Your task to perform on an android device: turn on the 24-hour format for clock Image 0: 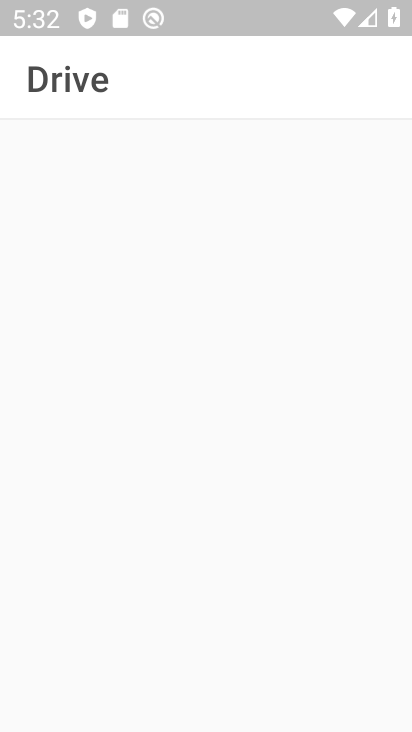
Step 0: press home button
Your task to perform on an android device: turn on the 24-hour format for clock Image 1: 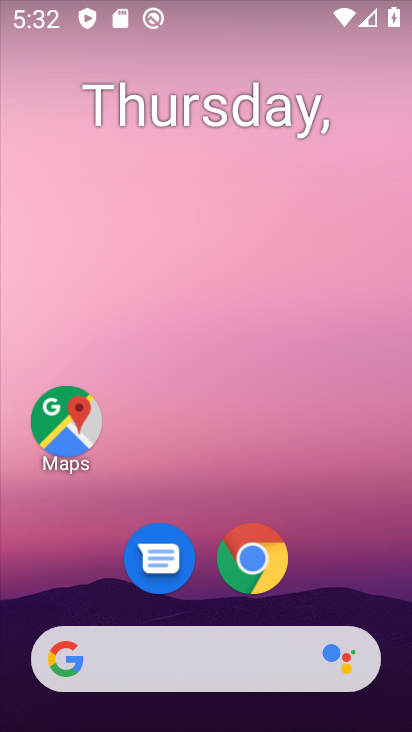
Step 1: drag from (315, 418) to (262, 100)
Your task to perform on an android device: turn on the 24-hour format for clock Image 2: 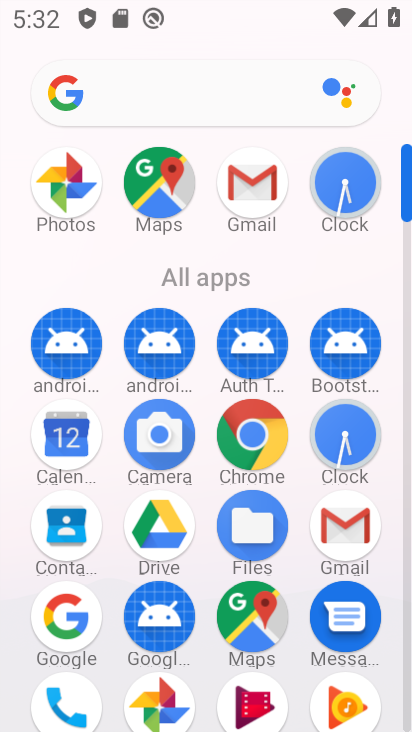
Step 2: click (343, 444)
Your task to perform on an android device: turn on the 24-hour format for clock Image 3: 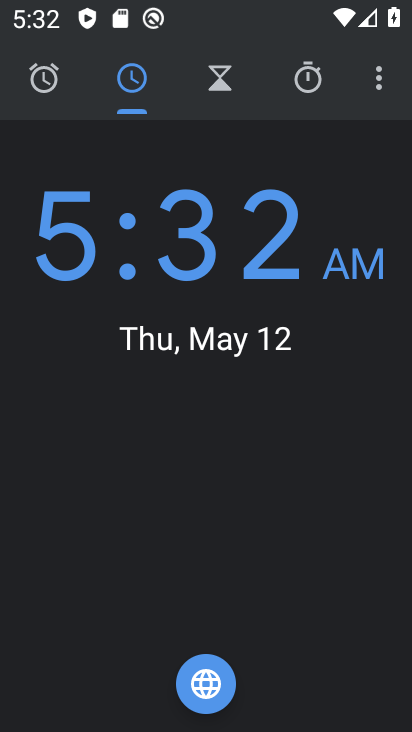
Step 3: click (377, 83)
Your task to perform on an android device: turn on the 24-hour format for clock Image 4: 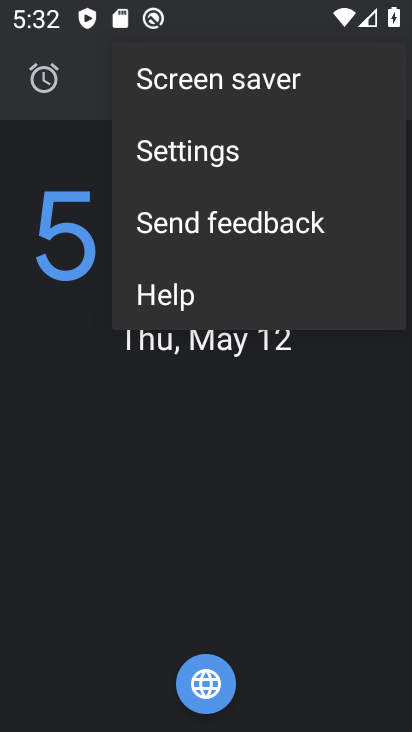
Step 4: click (243, 161)
Your task to perform on an android device: turn on the 24-hour format for clock Image 5: 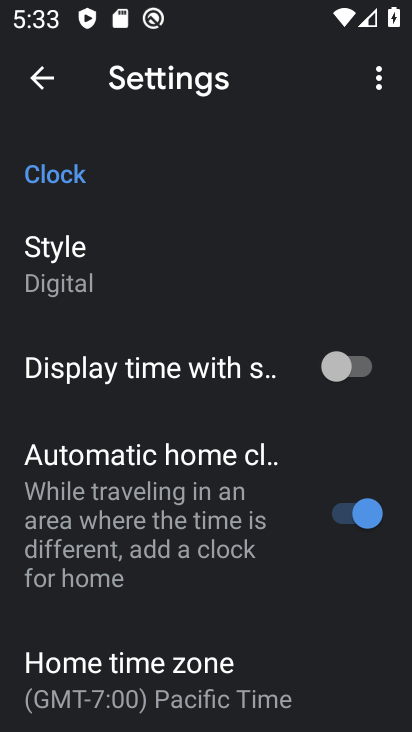
Step 5: drag from (231, 495) to (256, 214)
Your task to perform on an android device: turn on the 24-hour format for clock Image 6: 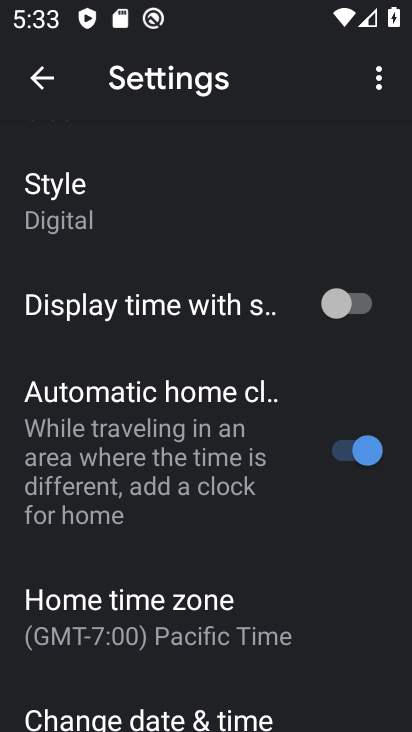
Step 6: drag from (208, 657) to (215, 274)
Your task to perform on an android device: turn on the 24-hour format for clock Image 7: 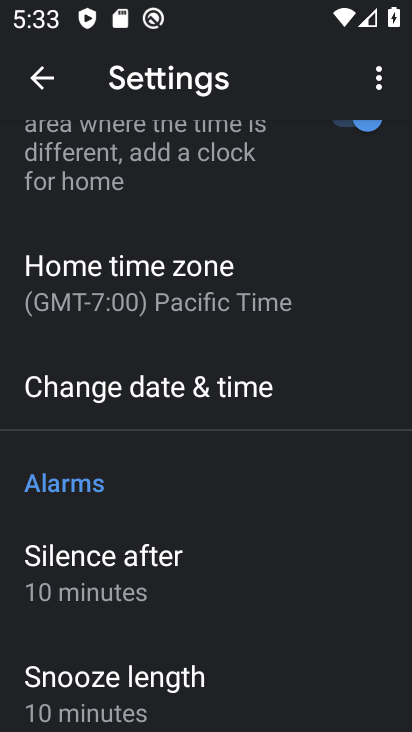
Step 7: click (201, 376)
Your task to perform on an android device: turn on the 24-hour format for clock Image 8: 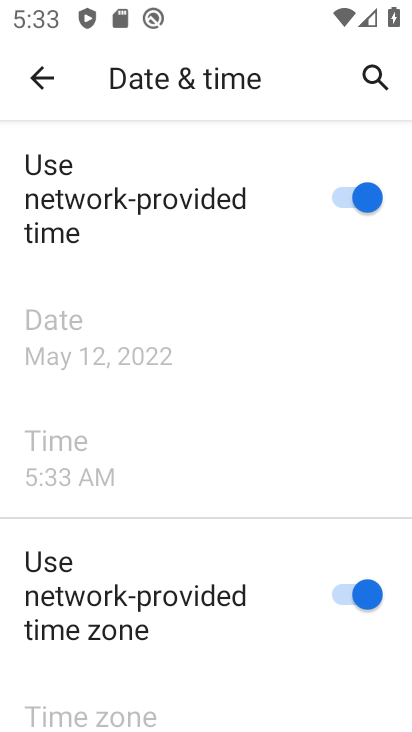
Step 8: drag from (212, 630) to (198, 197)
Your task to perform on an android device: turn on the 24-hour format for clock Image 9: 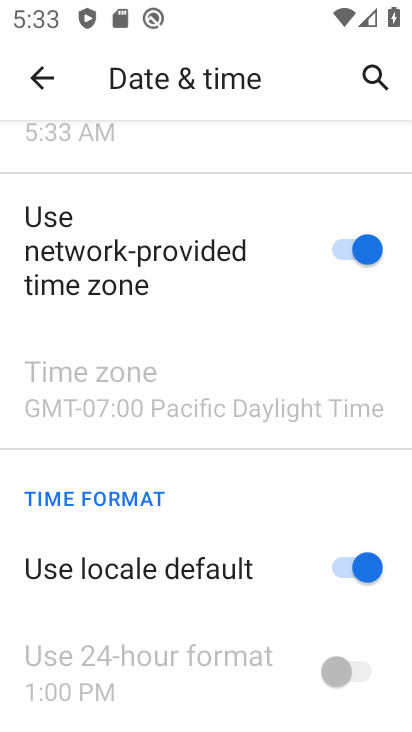
Step 9: drag from (180, 632) to (202, 246)
Your task to perform on an android device: turn on the 24-hour format for clock Image 10: 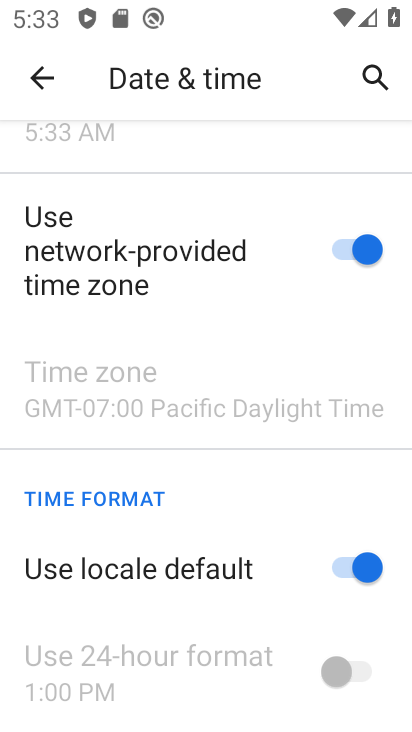
Step 10: click (336, 574)
Your task to perform on an android device: turn on the 24-hour format for clock Image 11: 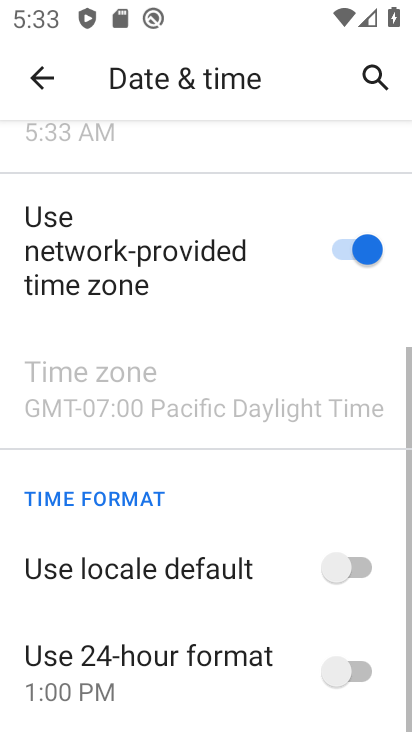
Step 11: click (362, 672)
Your task to perform on an android device: turn on the 24-hour format for clock Image 12: 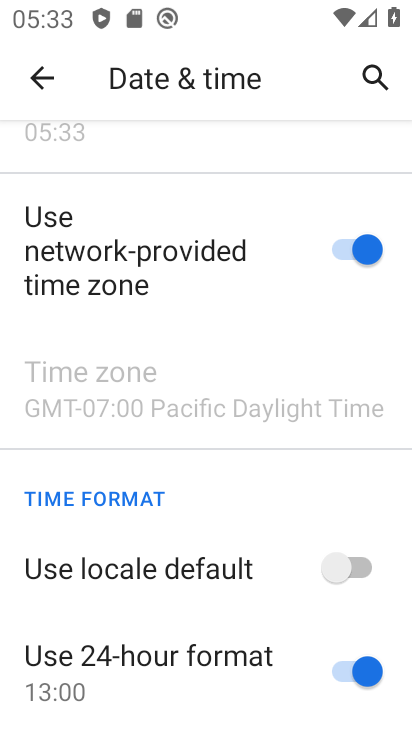
Step 12: task complete